Your task to perform on an android device: change alarm snooze length Image 0: 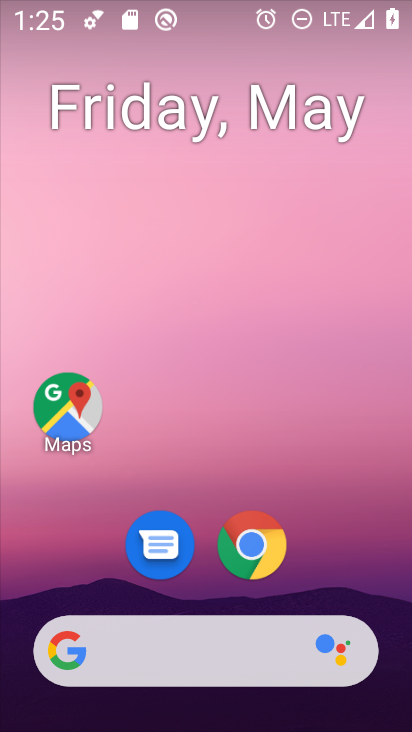
Step 0: drag from (315, 625) to (299, 226)
Your task to perform on an android device: change alarm snooze length Image 1: 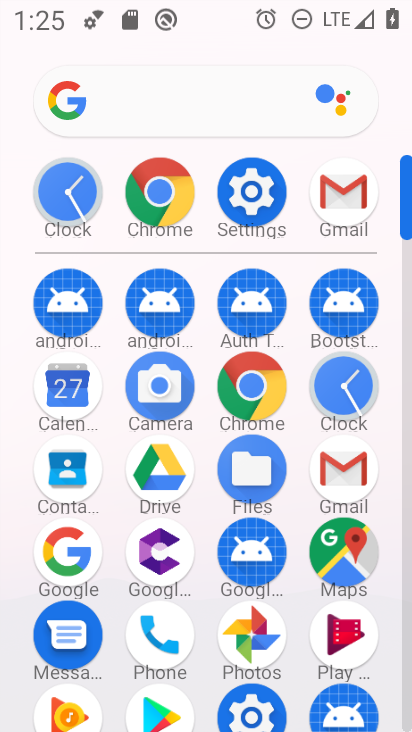
Step 1: click (351, 461)
Your task to perform on an android device: change alarm snooze length Image 2: 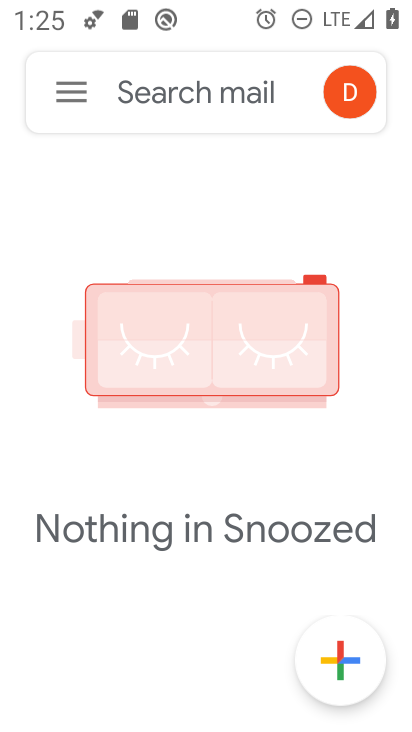
Step 2: click (65, 94)
Your task to perform on an android device: change alarm snooze length Image 3: 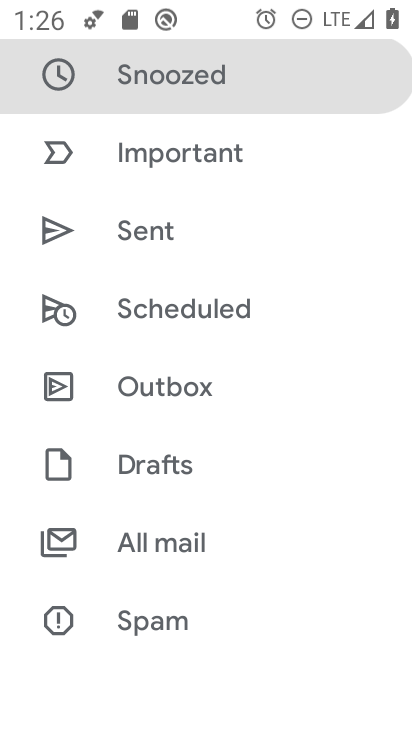
Step 3: click (157, 67)
Your task to perform on an android device: change alarm snooze length Image 4: 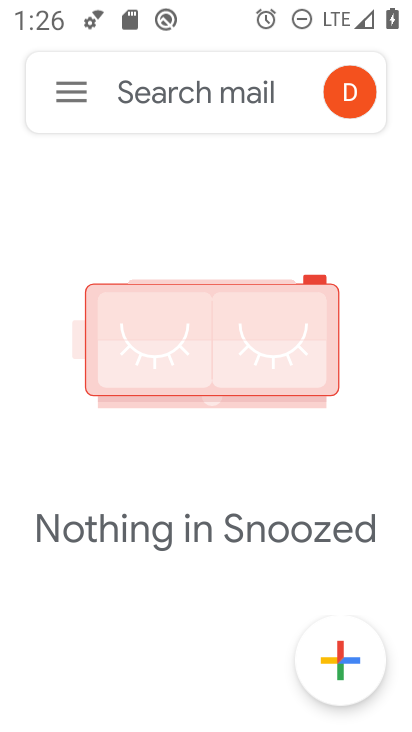
Step 4: task complete